Your task to perform on an android device: choose inbox layout in the gmail app Image 0: 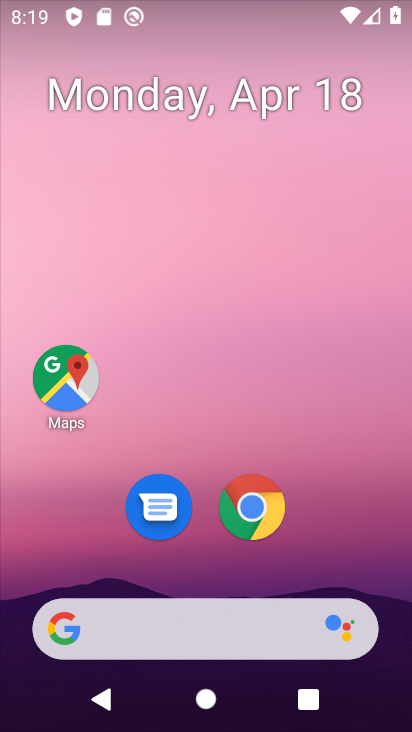
Step 0: drag from (328, 502) to (310, 151)
Your task to perform on an android device: choose inbox layout in the gmail app Image 1: 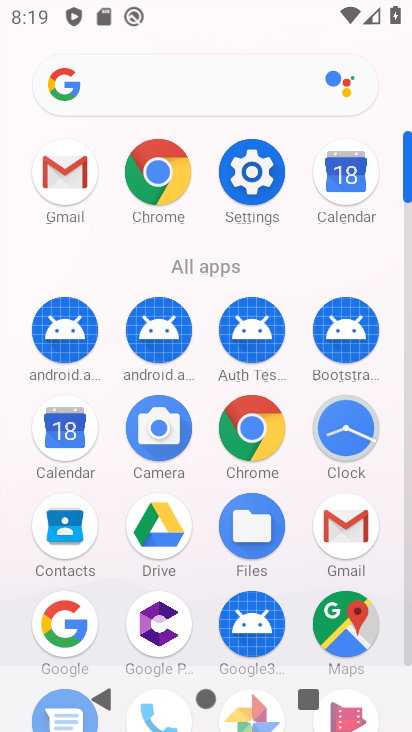
Step 1: click (72, 204)
Your task to perform on an android device: choose inbox layout in the gmail app Image 2: 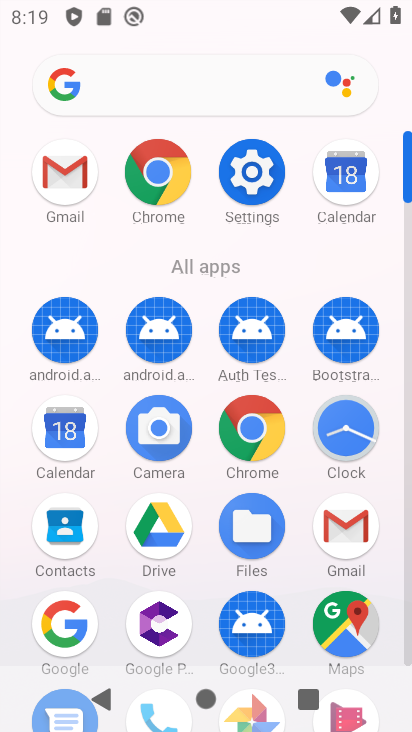
Step 2: click (72, 180)
Your task to perform on an android device: choose inbox layout in the gmail app Image 3: 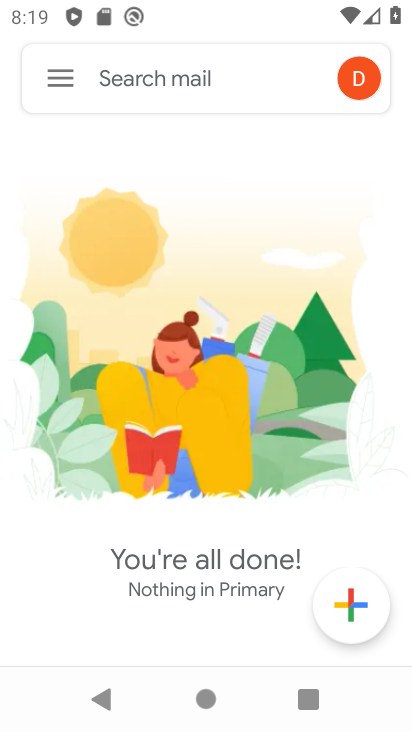
Step 3: click (53, 77)
Your task to perform on an android device: choose inbox layout in the gmail app Image 4: 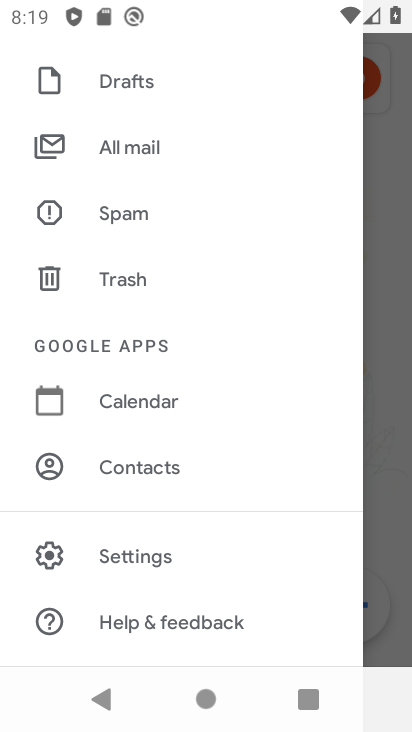
Step 4: click (143, 562)
Your task to perform on an android device: choose inbox layout in the gmail app Image 5: 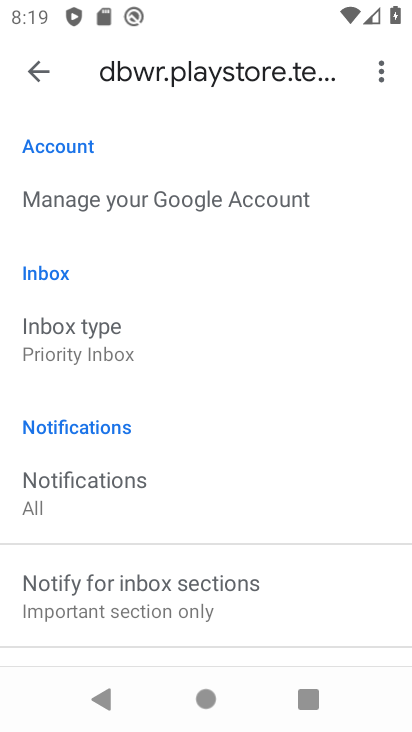
Step 5: click (88, 343)
Your task to perform on an android device: choose inbox layout in the gmail app Image 6: 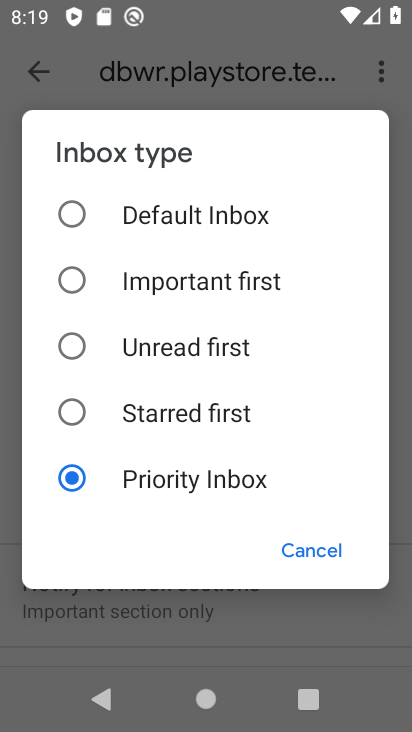
Step 6: click (72, 213)
Your task to perform on an android device: choose inbox layout in the gmail app Image 7: 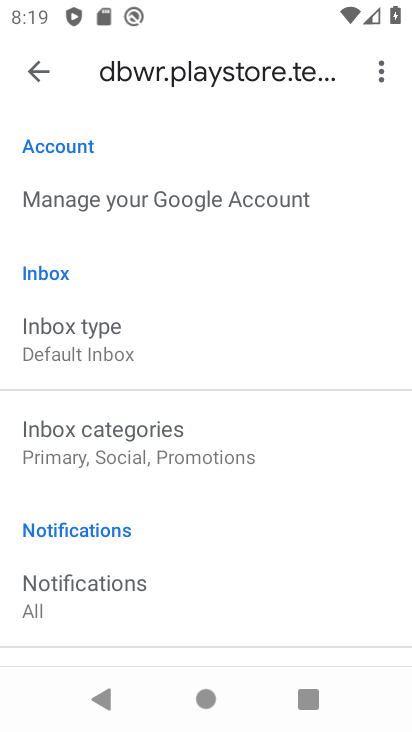
Step 7: task complete